Your task to perform on an android device: visit the assistant section in the google photos Image 0: 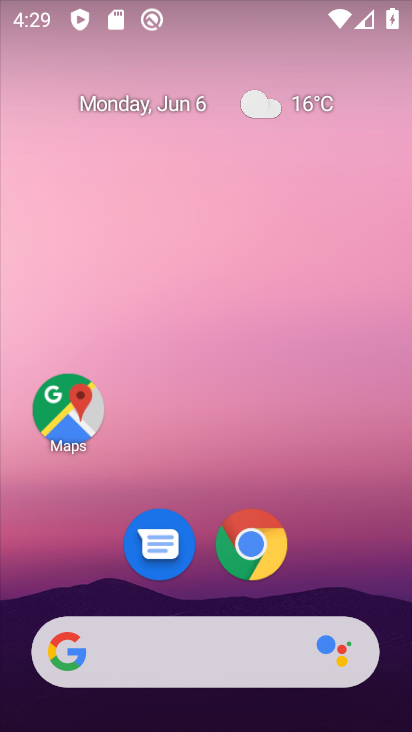
Step 0: press home button
Your task to perform on an android device: visit the assistant section in the google photos Image 1: 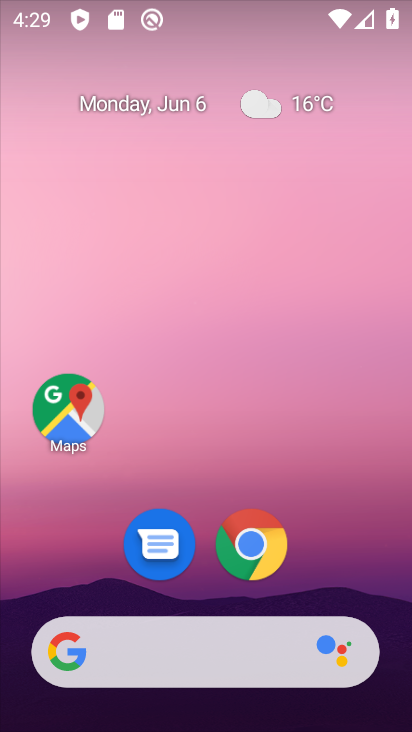
Step 1: drag from (203, 590) to (315, 48)
Your task to perform on an android device: visit the assistant section in the google photos Image 2: 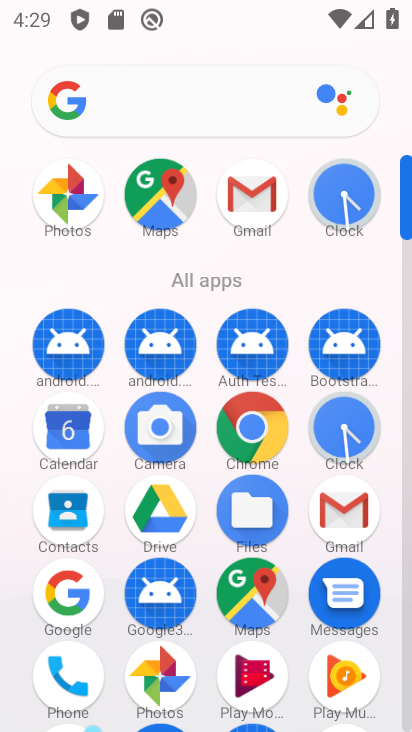
Step 2: click (160, 664)
Your task to perform on an android device: visit the assistant section in the google photos Image 3: 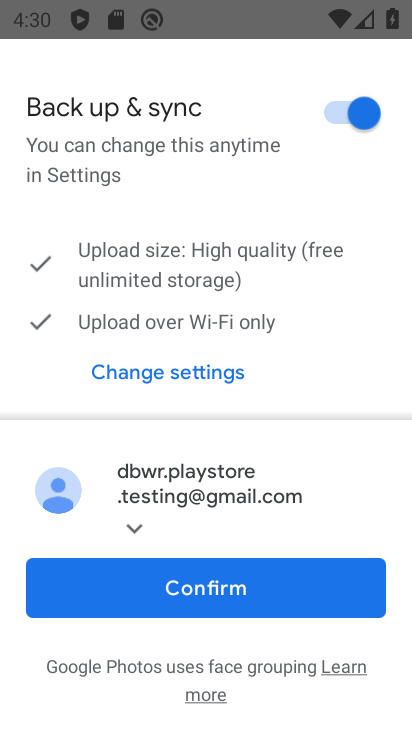
Step 3: click (229, 590)
Your task to perform on an android device: visit the assistant section in the google photos Image 4: 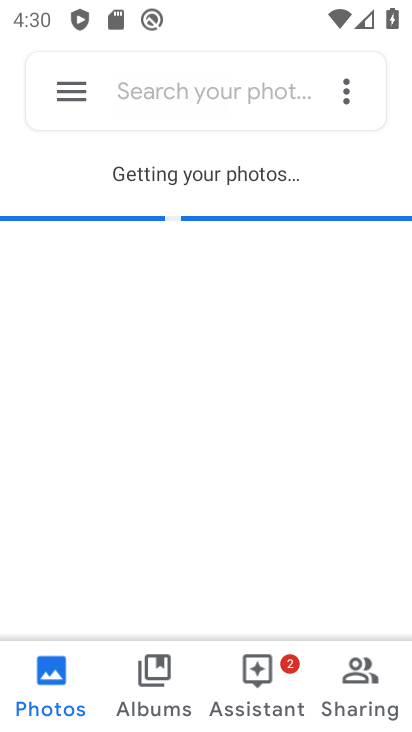
Step 4: click (258, 671)
Your task to perform on an android device: visit the assistant section in the google photos Image 5: 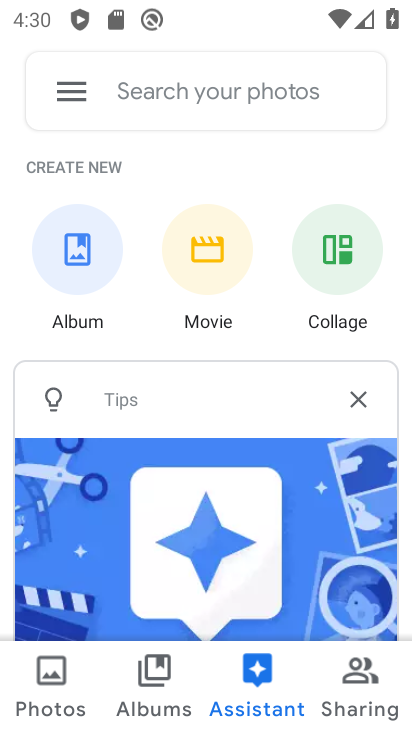
Step 5: task complete